Your task to perform on an android device: turn off translation in the chrome app Image 0: 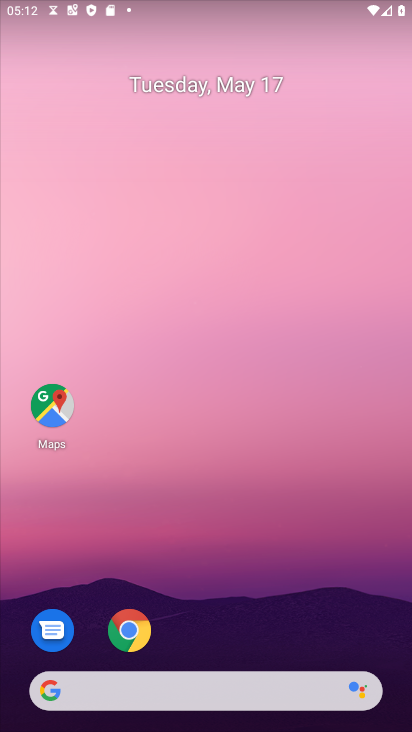
Step 0: click (147, 637)
Your task to perform on an android device: turn off translation in the chrome app Image 1: 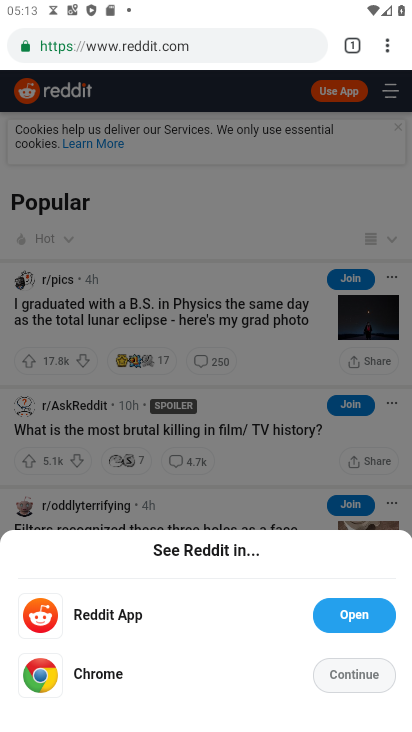
Step 1: drag from (381, 47) to (221, 547)
Your task to perform on an android device: turn off translation in the chrome app Image 2: 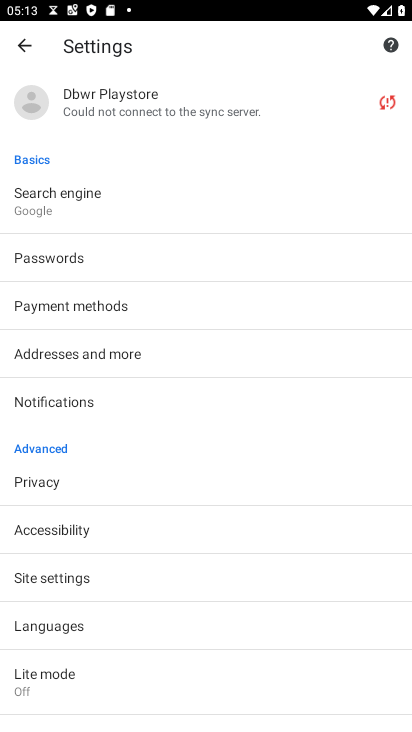
Step 2: click (35, 616)
Your task to perform on an android device: turn off translation in the chrome app Image 3: 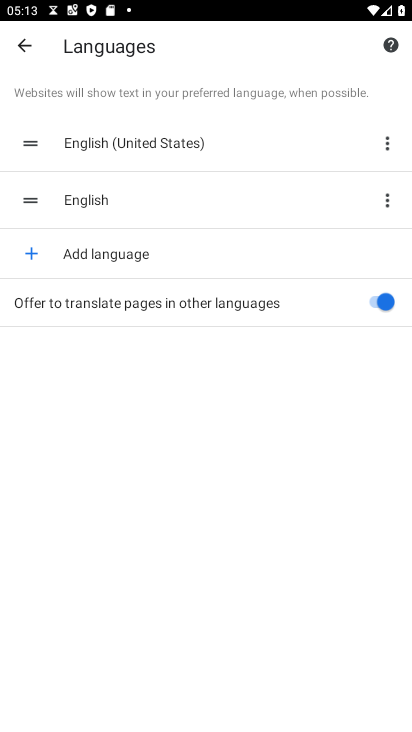
Step 3: click (377, 300)
Your task to perform on an android device: turn off translation in the chrome app Image 4: 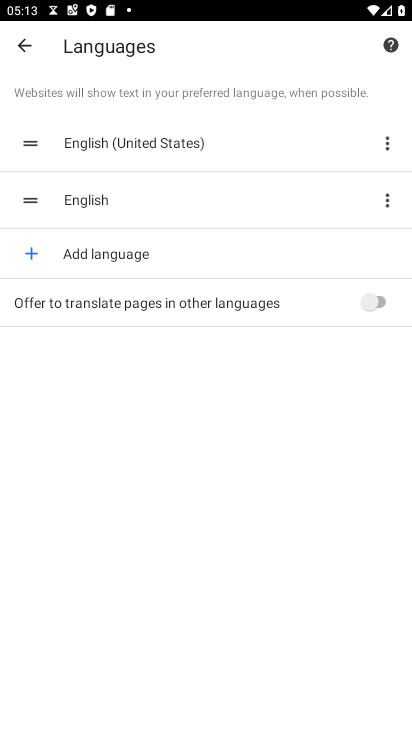
Step 4: task complete